Your task to perform on an android device: Open Android settings Image 0: 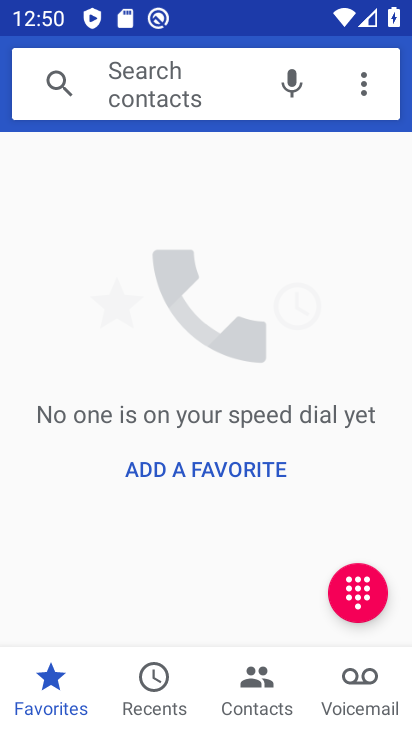
Step 0: press home button
Your task to perform on an android device: Open Android settings Image 1: 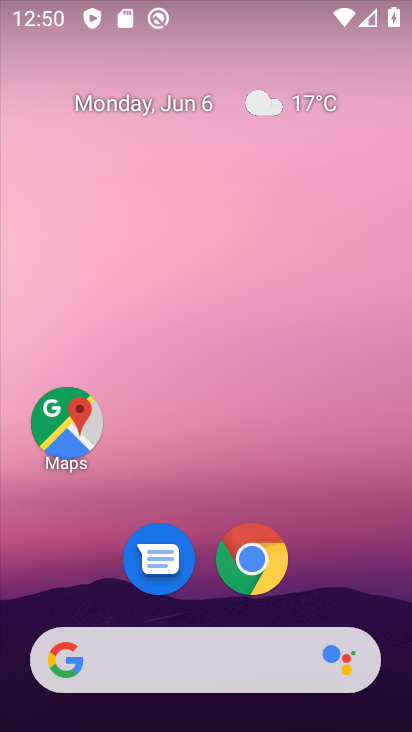
Step 1: drag from (252, 656) to (313, 13)
Your task to perform on an android device: Open Android settings Image 2: 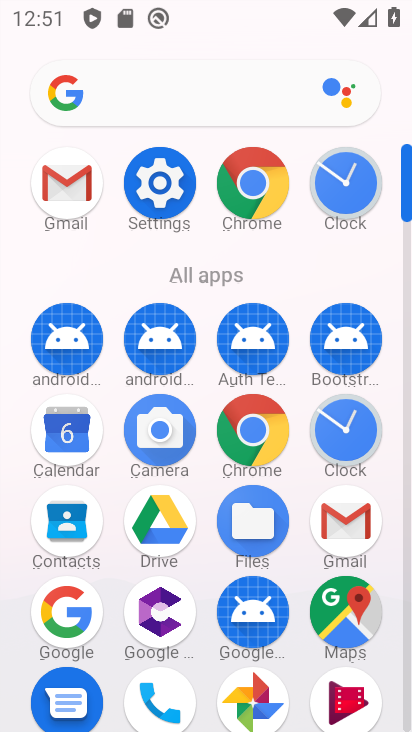
Step 2: click (174, 212)
Your task to perform on an android device: Open Android settings Image 3: 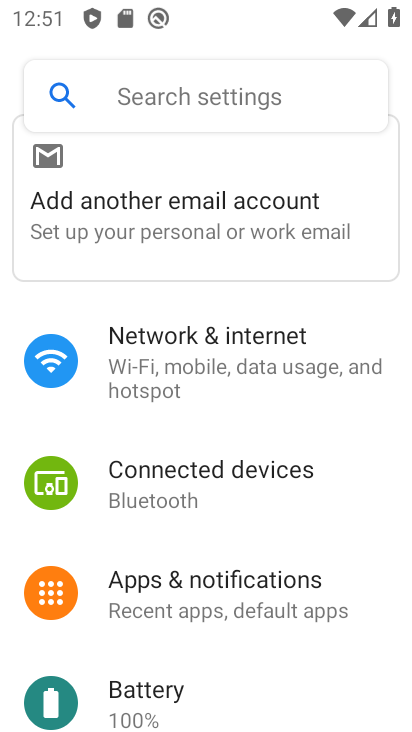
Step 3: drag from (198, 463) to (218, 126)
Your task to perform on an android device: Open Android settings Image 4: 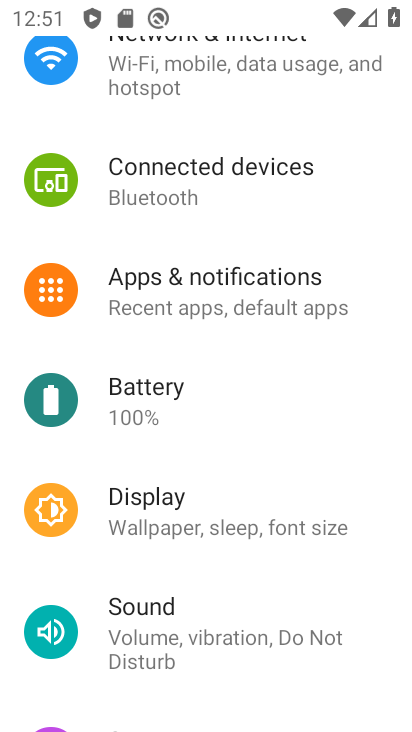
Step 4: drag from (203, 522) to (223, 197)
Your task to perform on an android device: Open Android settings Image 5: 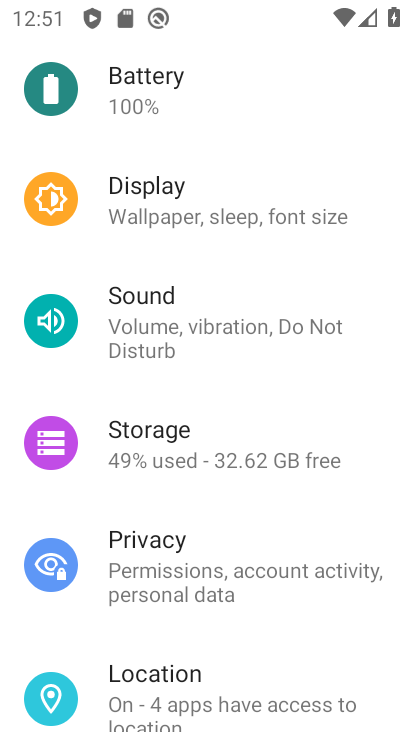
Step 5: drag from (213, 570) to (213, 226)
Your task to perform on an android device: Open Android settings Image 6: 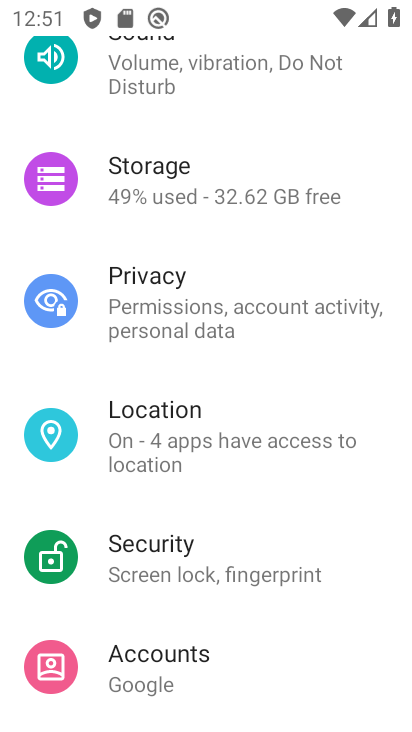
Step 6: drag from (172, 594) to (225, 120)
Your task to perform on an android device: Open Android settings Image 7: 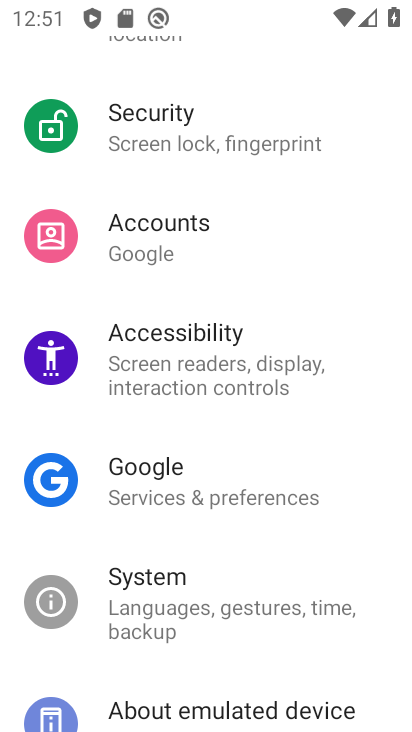
Step 7: drag from (196, 518) to (203, 191)
Your task to perform on an android device: Open Android settings Image 8: 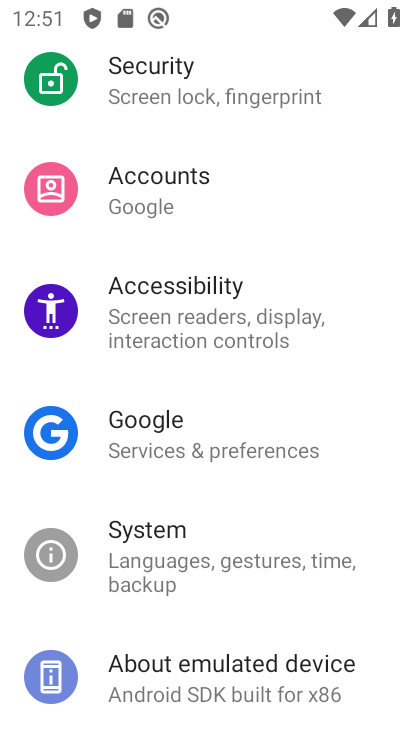
Step 8: drag from (211, 533) to (215, 282)
Your task to perform on an android device: Open Android settings Image 9: 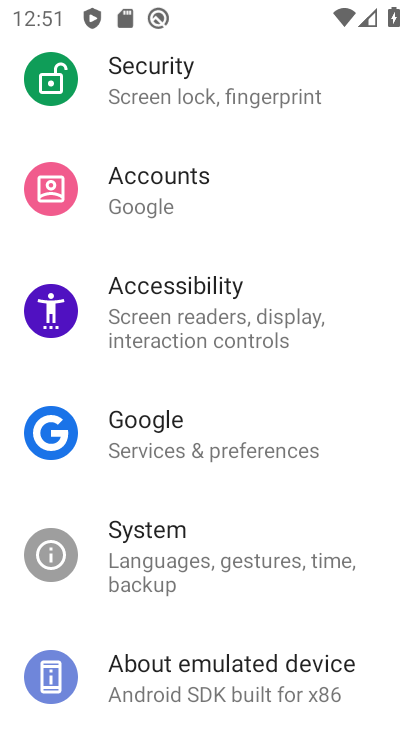
Step 9: drag from (162, 575) to (208, 217)
Your task to perform on an android device: Open Android settings Image 10: 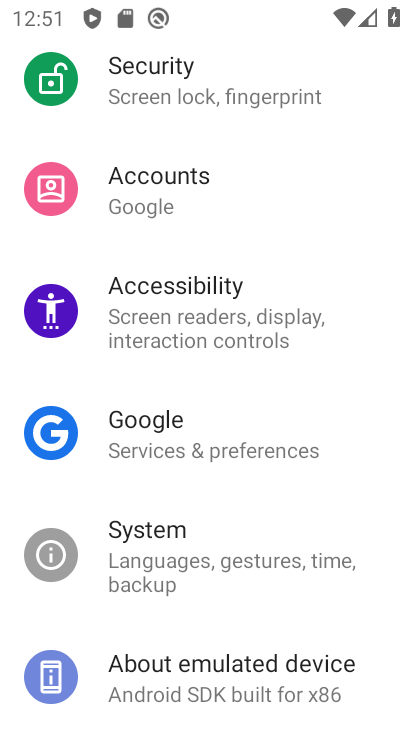
Step 10: click (236, 677)
Your task to perform on an android device: Open Android settings Image 11: 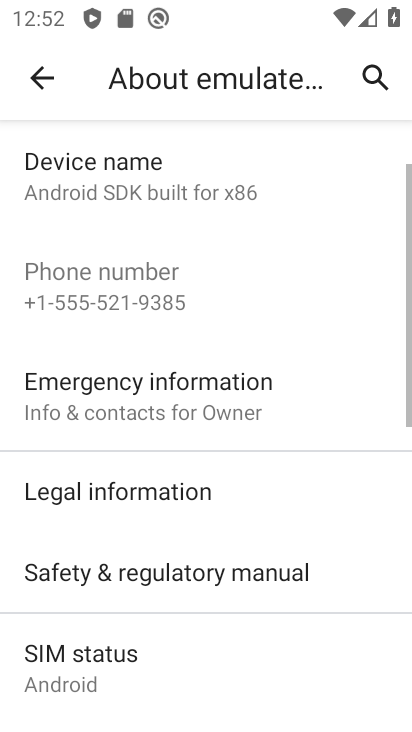
Step 11: drag from (191, 607) to (193, 542)
Your task to perform on an android device: Open Android settings Image 12: 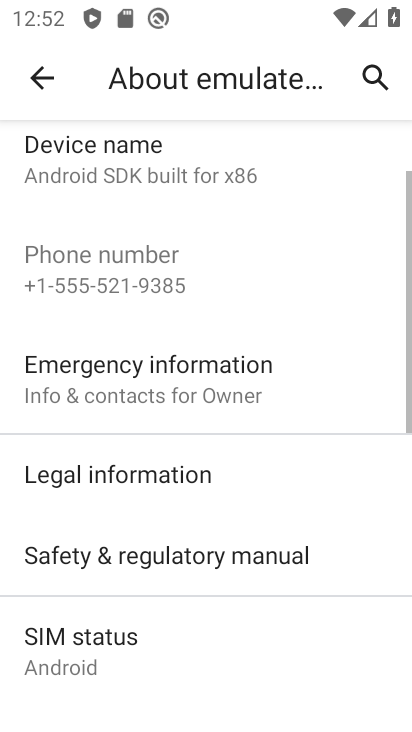
Step 12: drag from (168, 565) to (210, 174)
Your task to perform on an android device: Open Android settings Image 13: 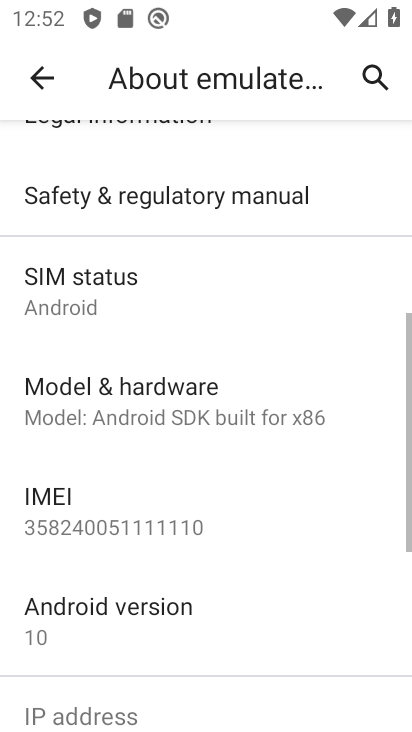
Step 13: click (162, 625)
Your task to perform on an android device: Open Android settings Image 14: 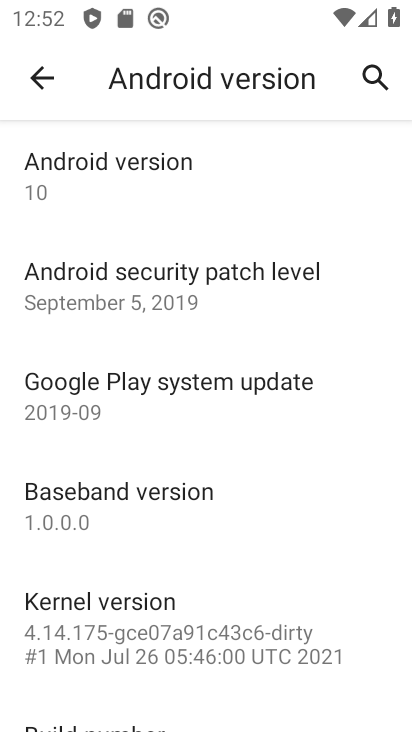
Step 14: task complete